Your task to perform on an android device: toggle data saver in the chrome app Image 0: 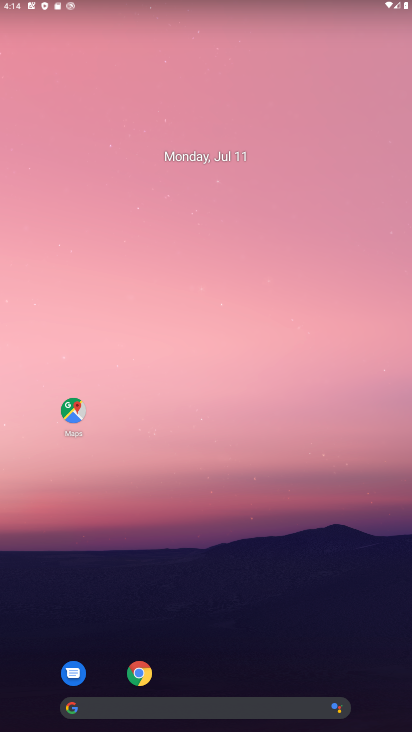
Step 0: click (139, 673)
Your task to perform on an android device: toggle data saver in the chrome app Image 1: 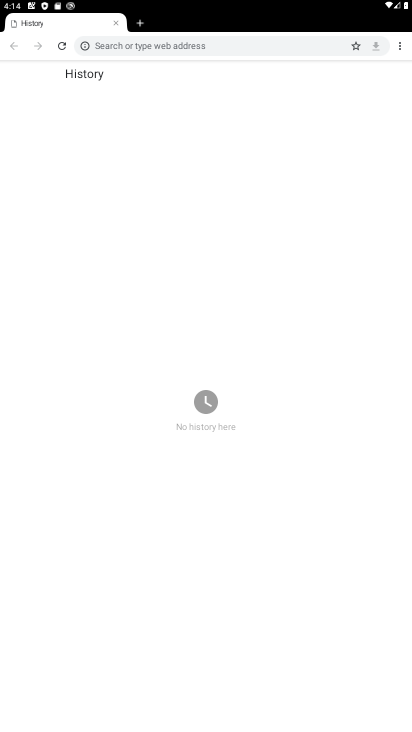
Step 1: click (401, 44)
Your task to perform on an android device: toggle data saver in the chrome app Image 2: 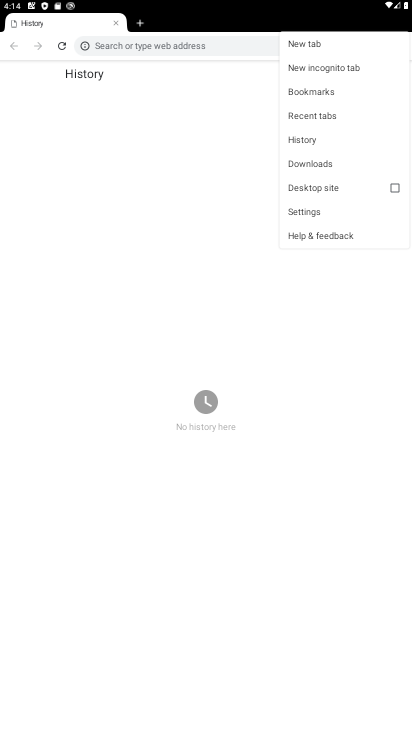
Step 2: click (311, 213)
Your task to perform on an android device: toggle data saver in the chrome app Image 3: 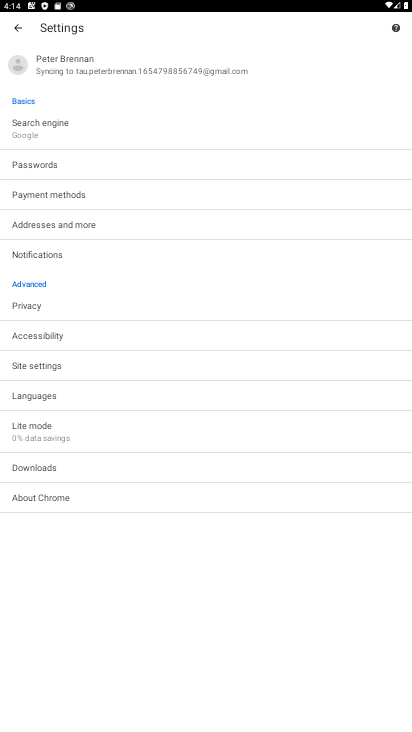
Step 3: click (44, 426)
Your task to perform on an android device: toggle data saver in the chrome app Image 4: 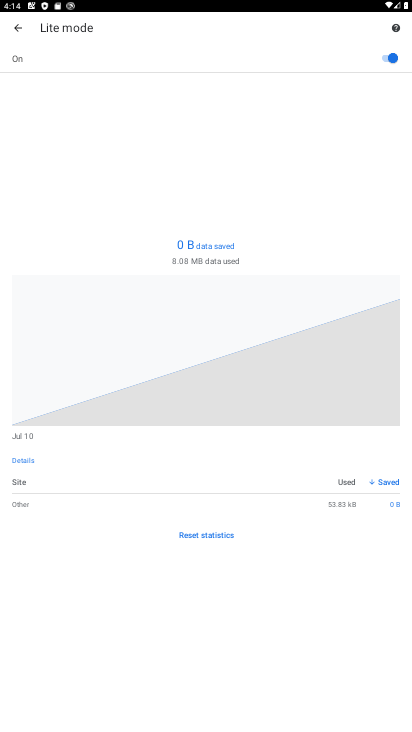
Step 4: click (385, 60)
Your task to perform on an android device: toggle data saver in the chrome app Image 5: 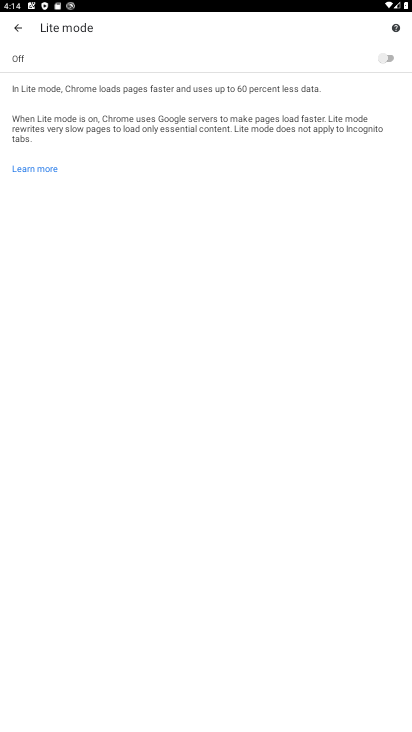
Step 5: task complete